Your task to perform on an android device: Open the phone app and click the voicemail tab. Image 0: 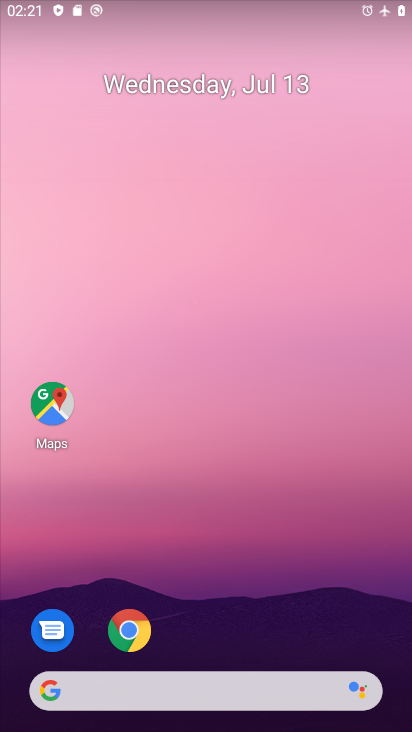
Step 0: drag from (221, 604) to (223, 205)
Your task to perform on an android device: Open the phone app and click the voicemail tab. Image 1: 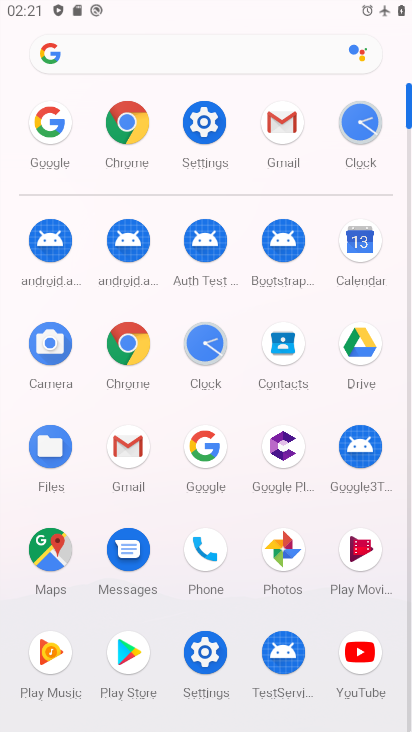
Step 1: click (206, 554)
Your task to perform on an android device: Open the phone app and click the voicemail tab. Image 2: 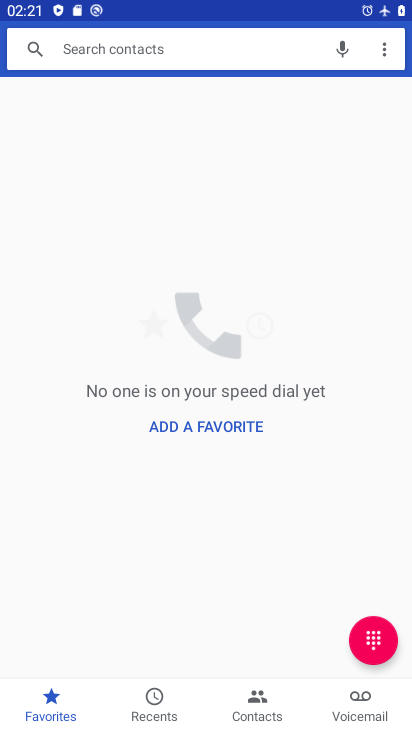
Step 2: click (367, 709)
Your task to perform on an android device: Open the phone app and click the voicemail tab. Image 3: 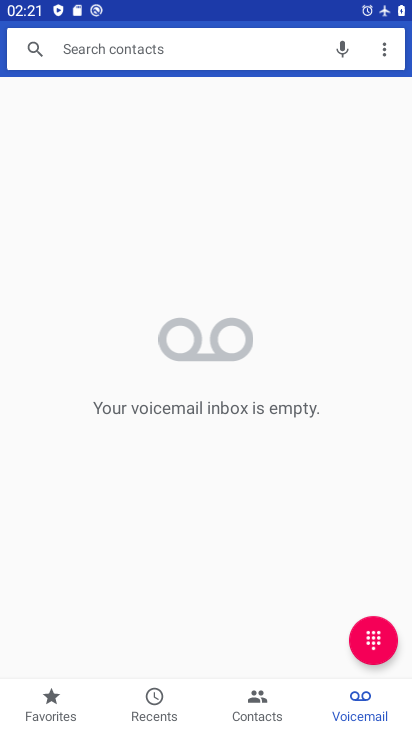
Step 3: task complete